Your task to perform on an android device: Go to Maps Image 0: 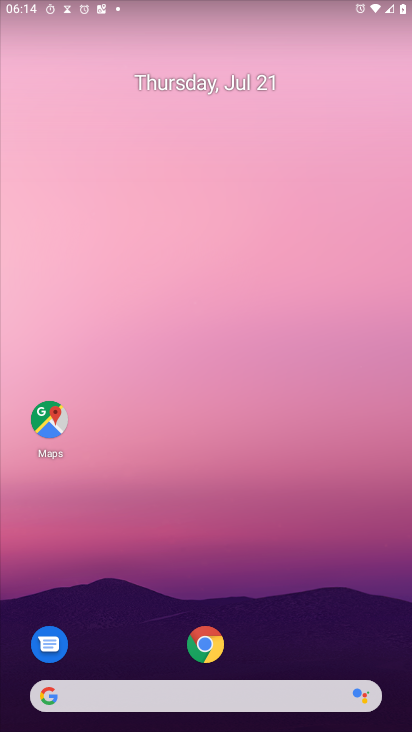
Step 0: press home button
Your task to perform on an android device: Go to Maps Image 1: 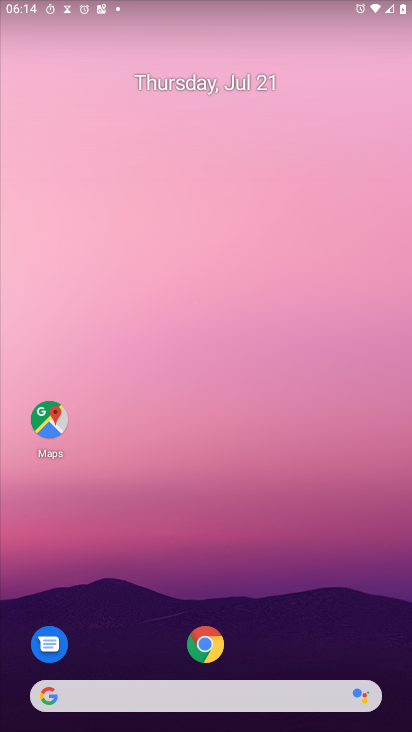
Step 1: press home button
Your task to perform on an android device: Go to Maps Image 2: 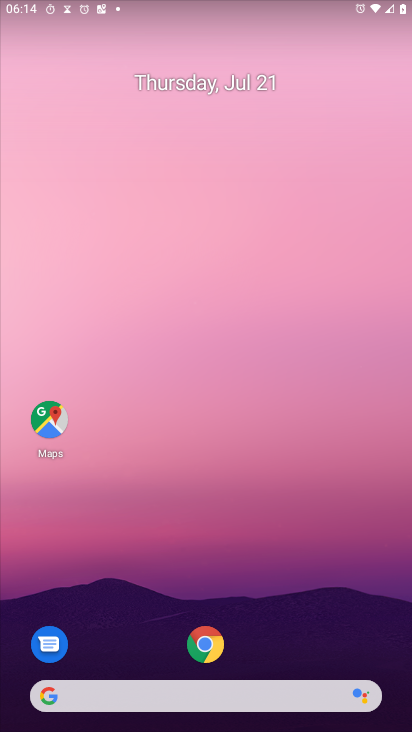
Step 2: click (45, 415)
Your task to perform on an android device: Go to Maps Image 3: 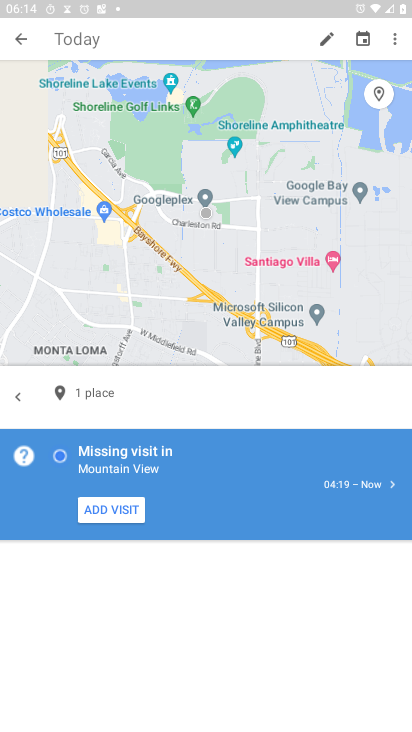
Step 3: click (18, 33)
Your task to perform on an android device: Go to Maps Image 4: 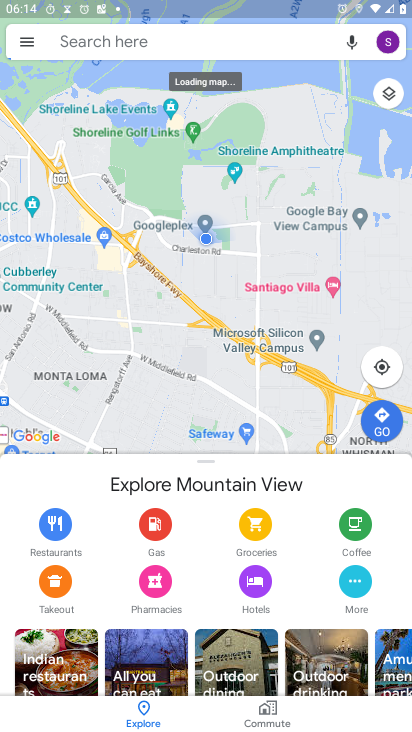
Step 4: task complete